Your task to perform on an android device: uninstall "Speedtest by Ookla" Image 0: 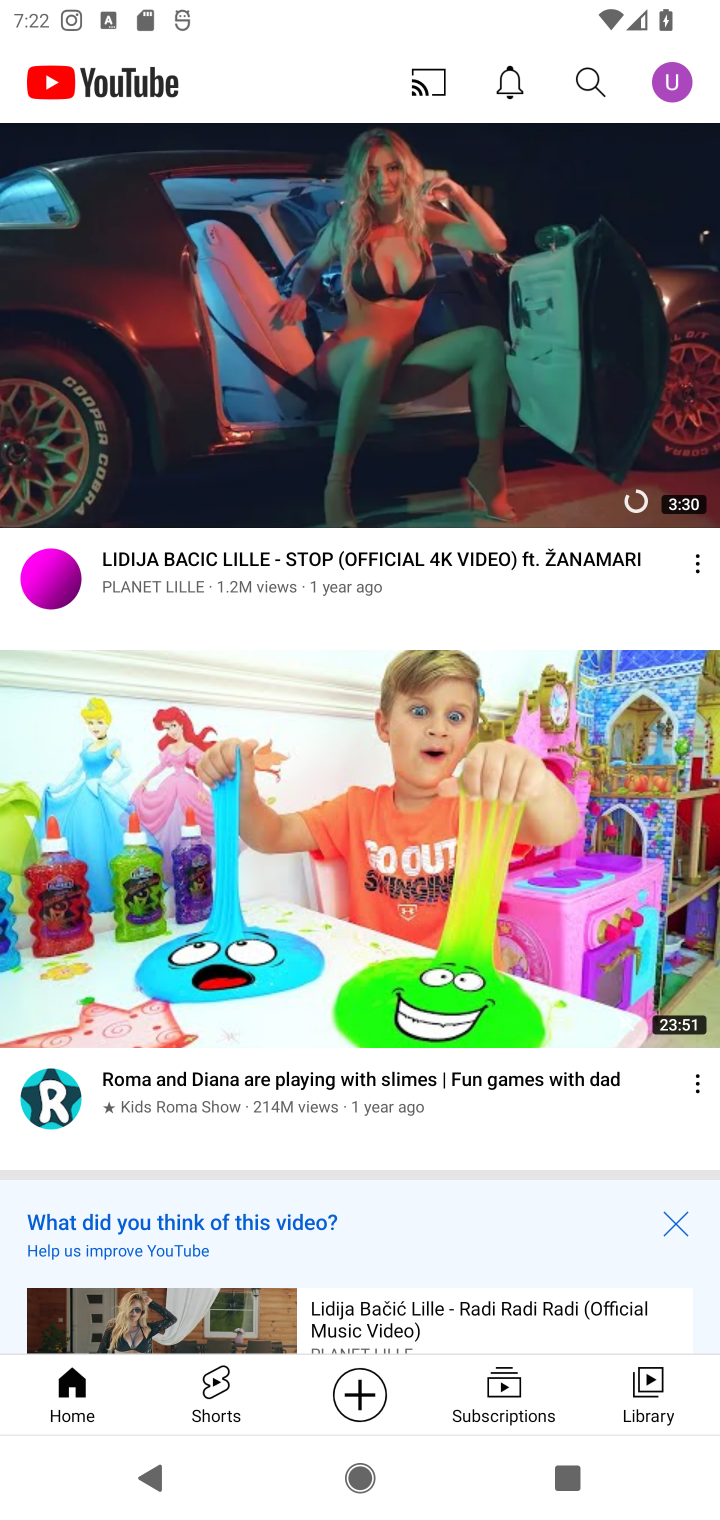
Step 0: press home button
Your task to perform on an android device: uninstall "Speedtest by Ookla" Image 1: 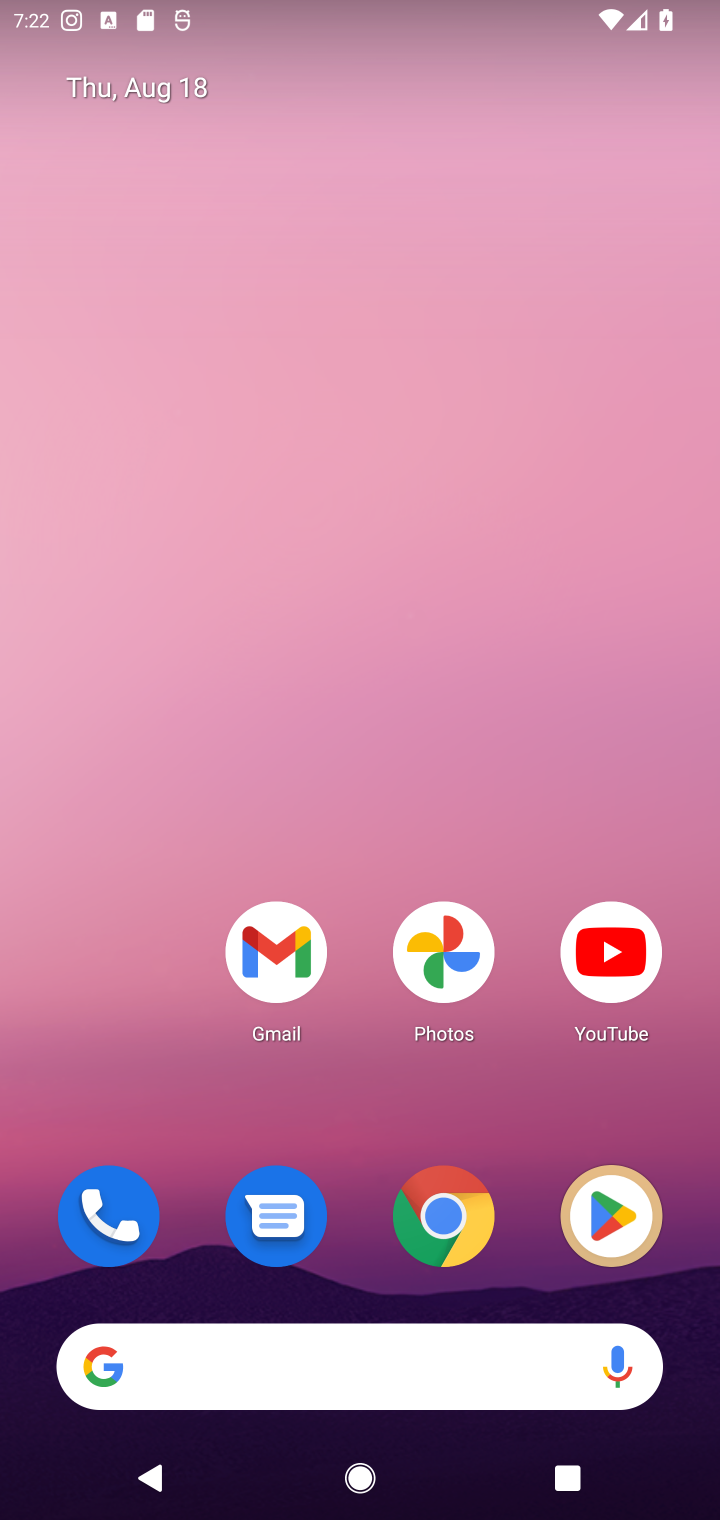
Step 1: click (618, 1223)
Your task to perform on an android device: uninstall "Speedtest by Ookla" Image 2: 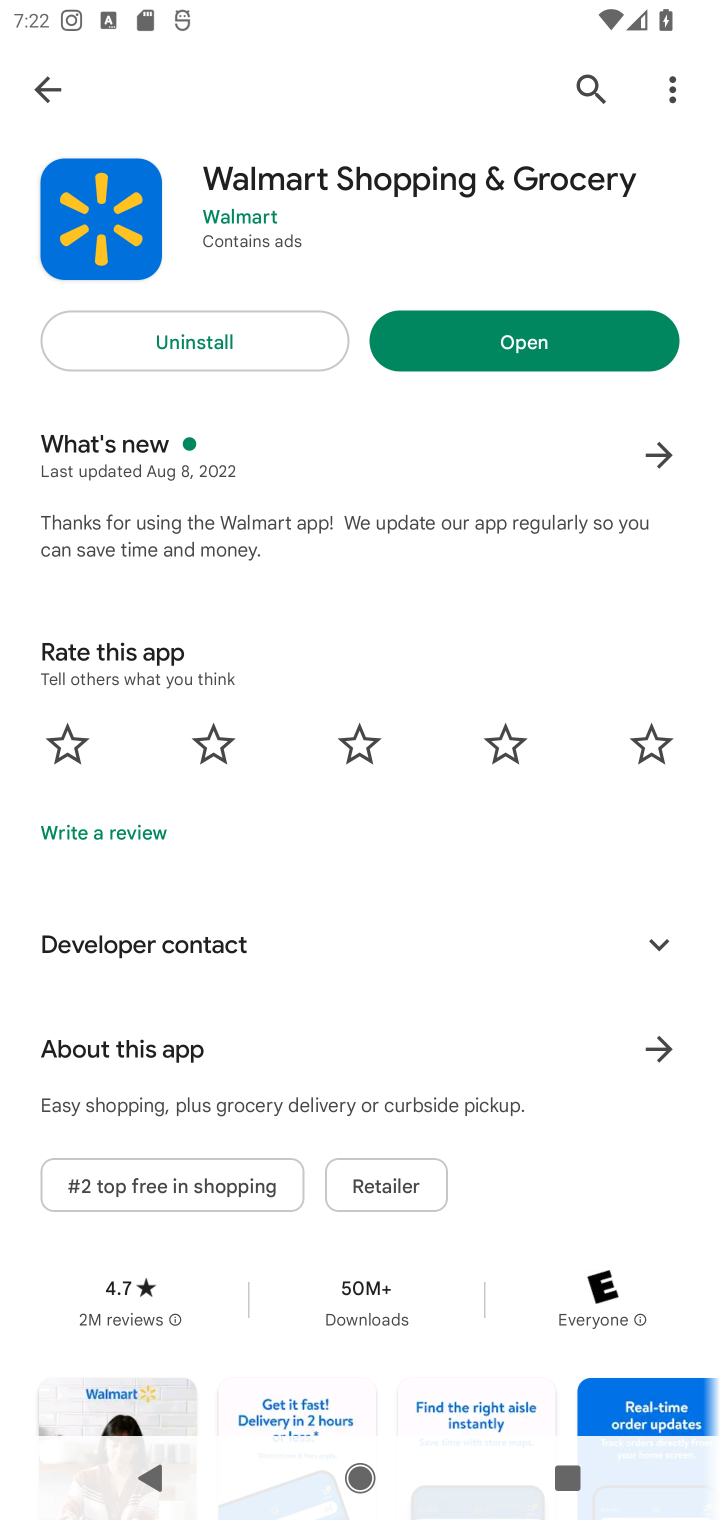
Step 2: click (606, 84)
Your task to perform on an android device: uninstall "Speedtest by Ookla" Image 3: 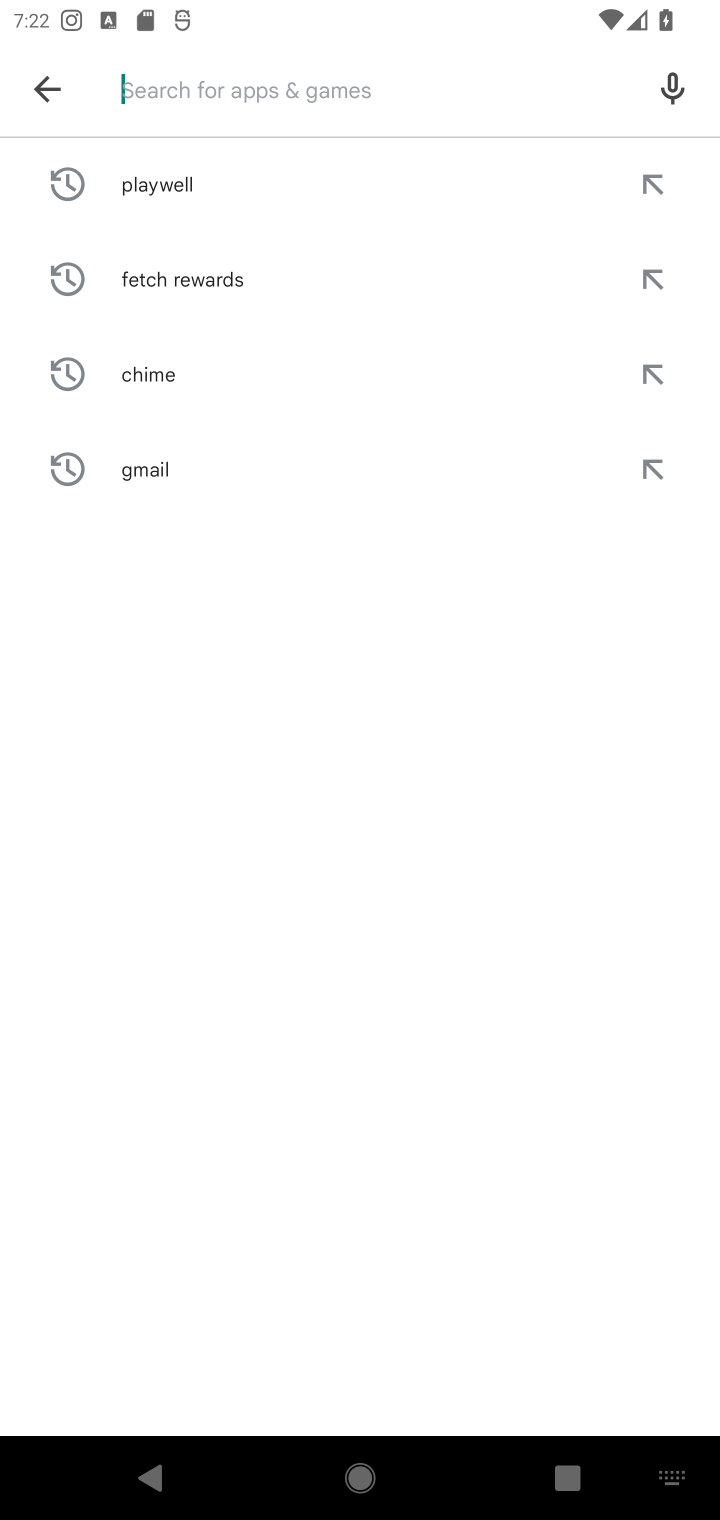
Step 3: type "Speedtest by Ookla"
Your task to perform on an android device: uninstall "Speedtest by Ookla" Image 4: 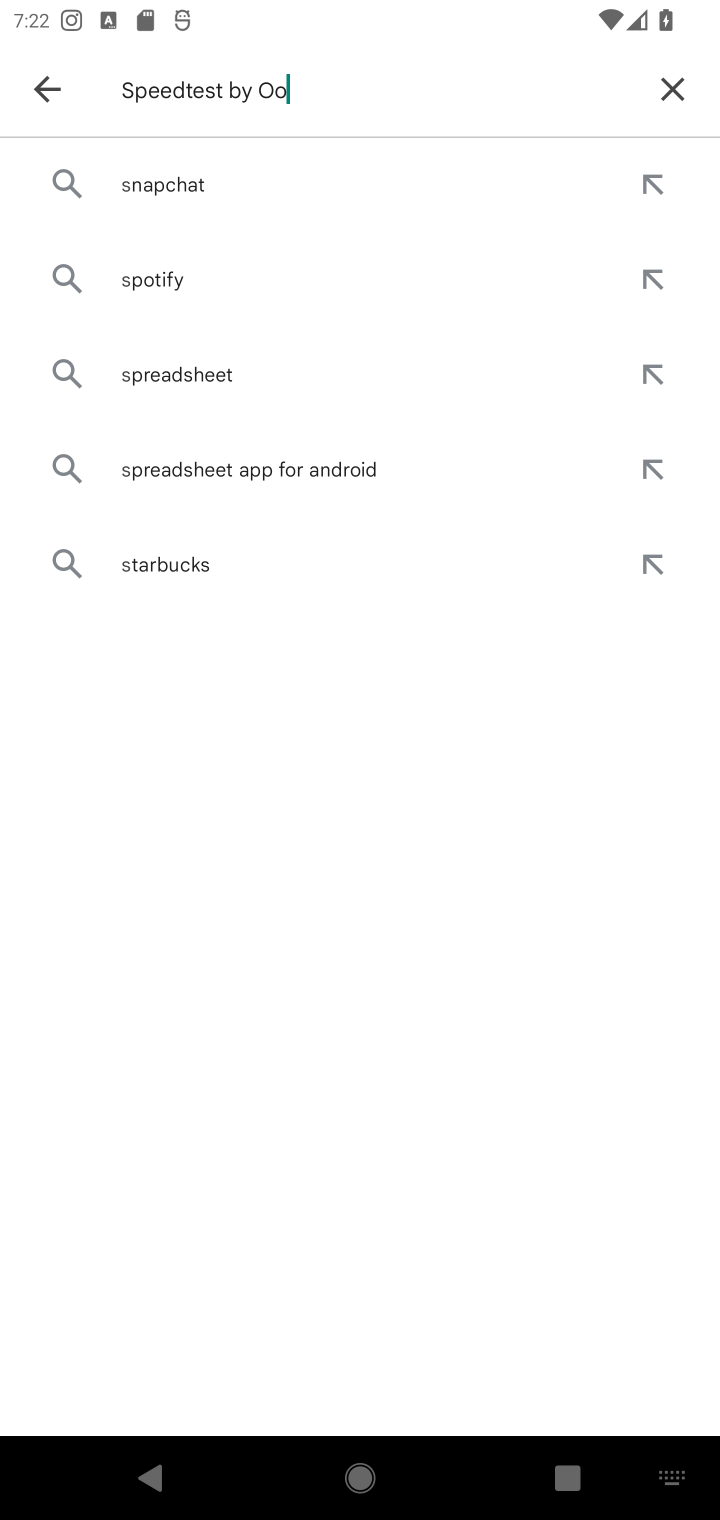
Step 4: type ""
Your task to perform on an android device: uninstall "Speedtest by Ookla" Image 5: 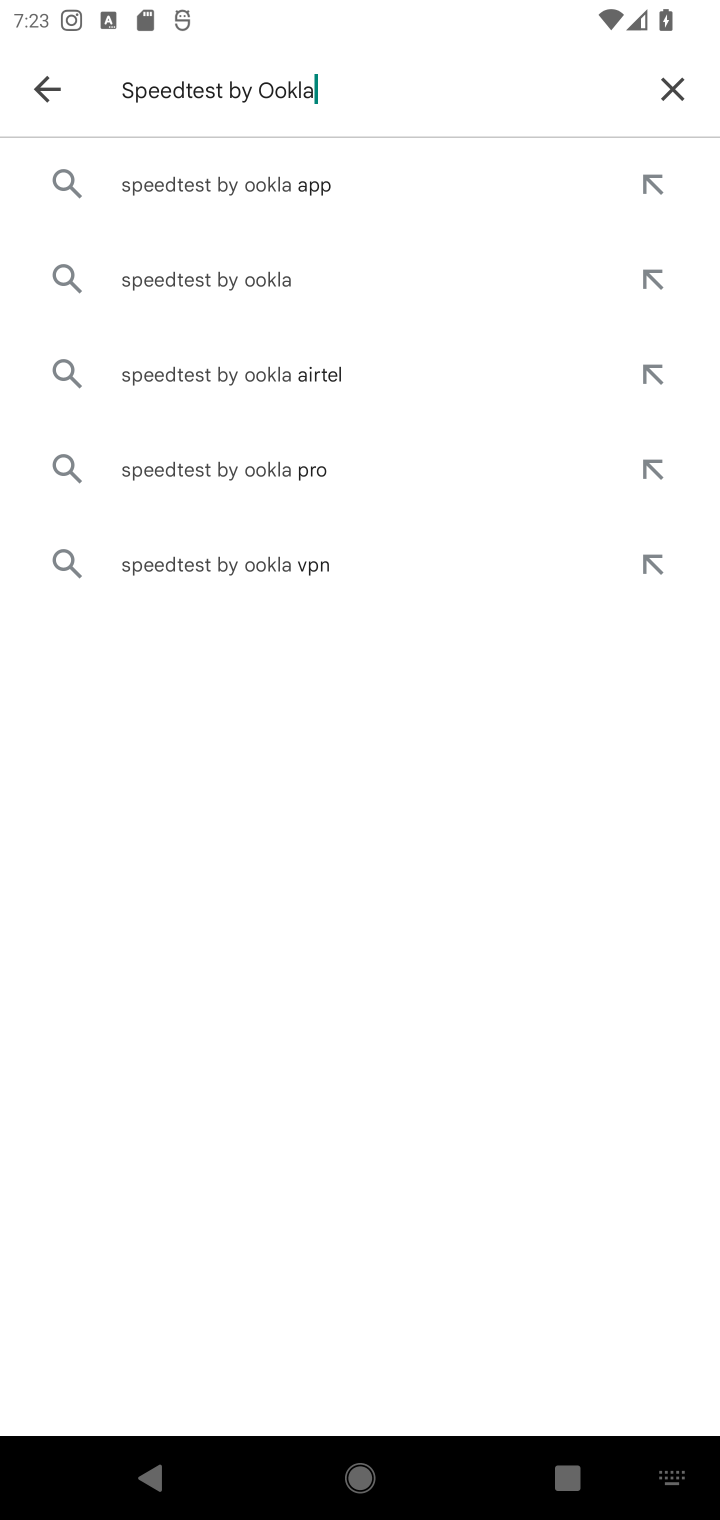
Step 5: click (169, 200)
Your task to perform on an android device: uninstall "Speedtest by Ookla" Image 6: 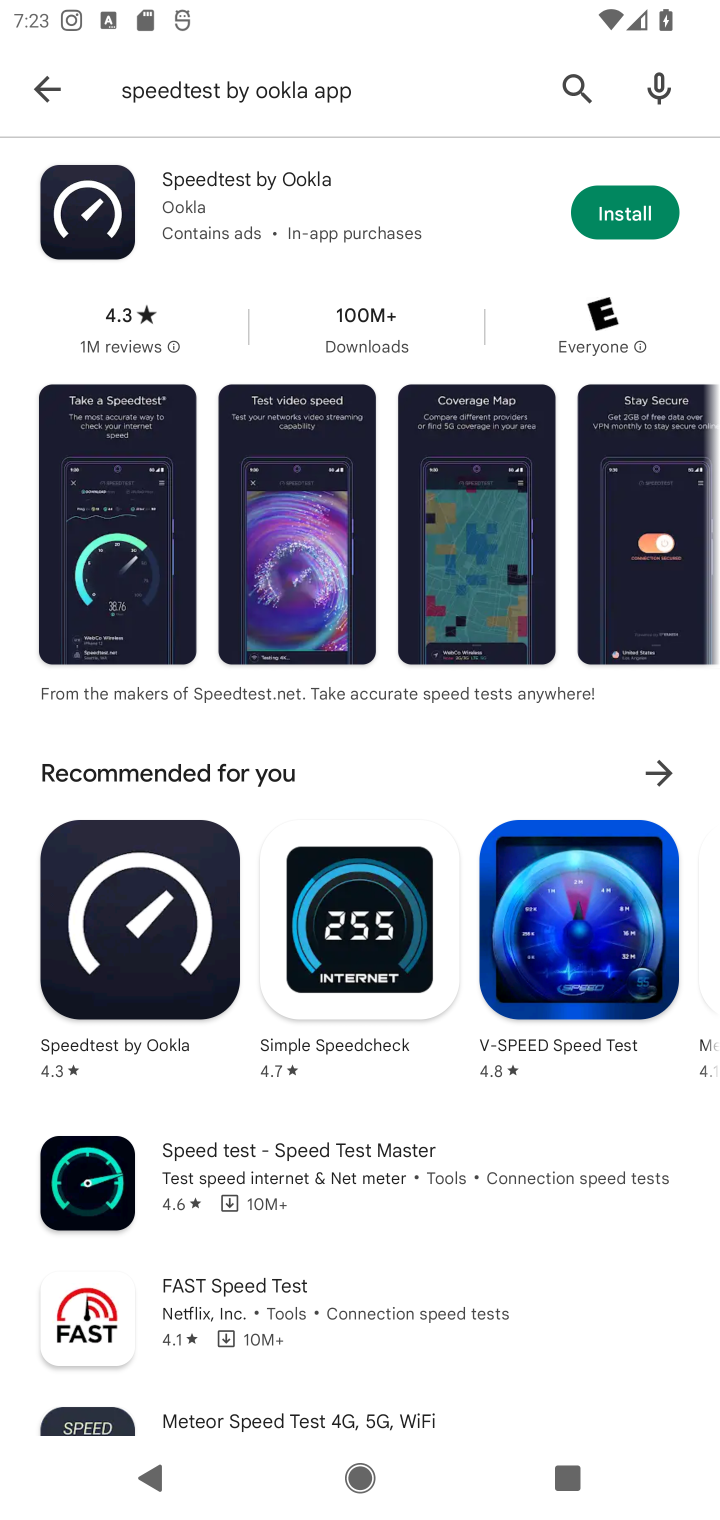
Step 6: click (374, 167)
Your task to perform on an android device: uninstall "Speedtest by Ookla" Image 7: 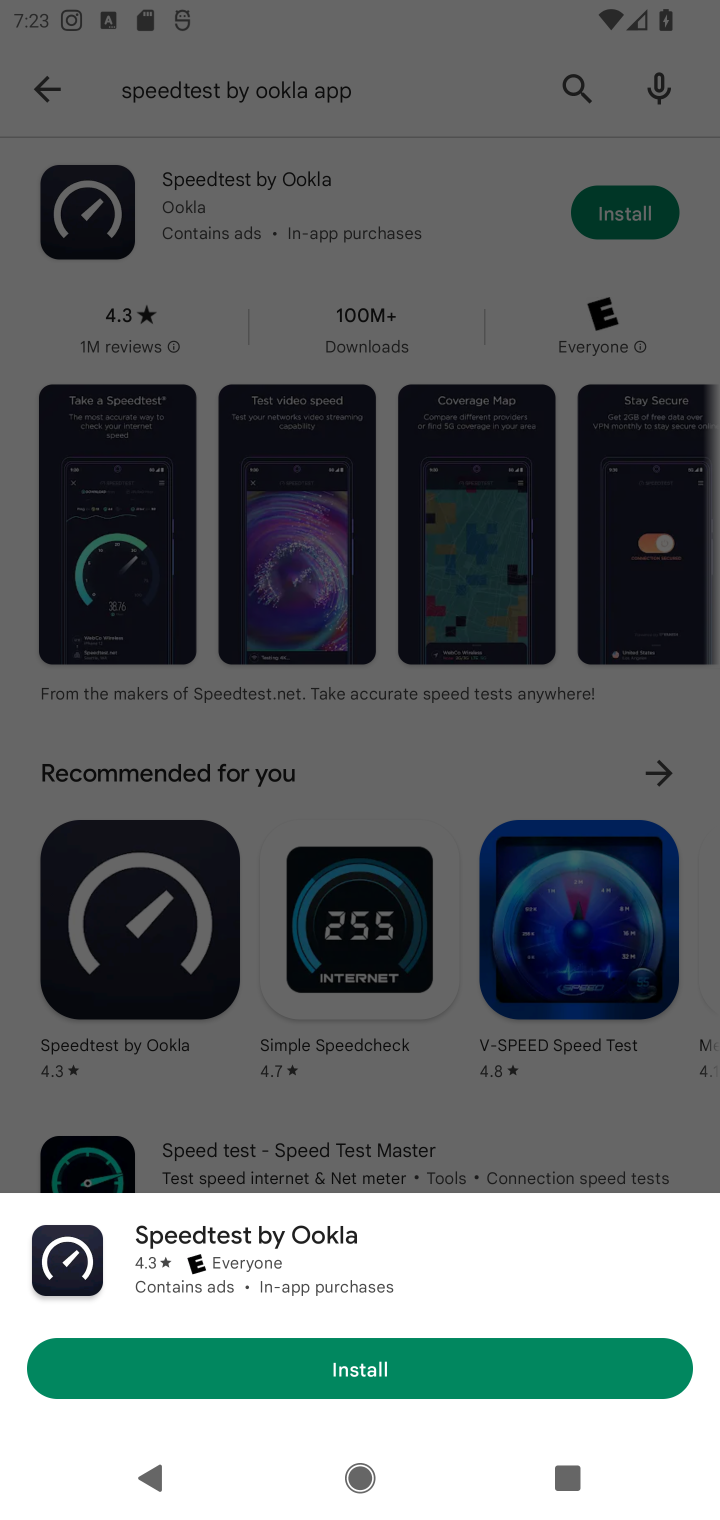
Step 7: click (288, 225)
Your task to perform on an android device: uninstall "Speedtest by Ookla" Image 8: 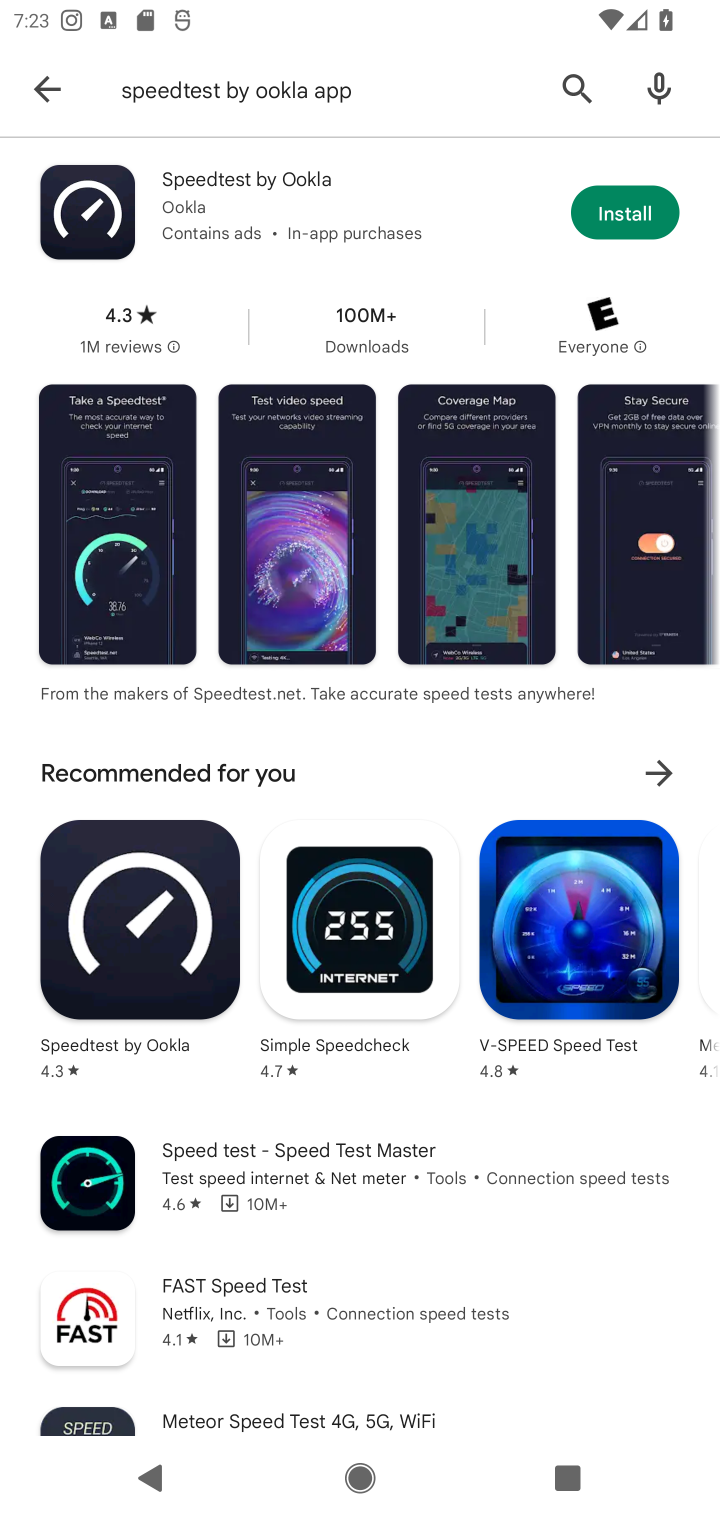
Step 8: task complete